Your task to perform on an android device: Go to CNN.com Image 0: 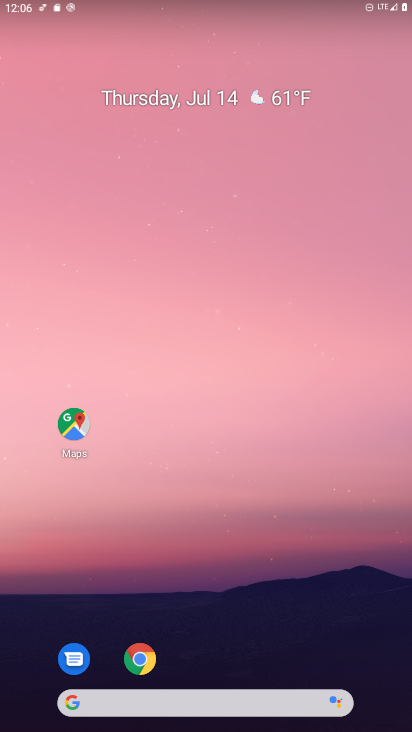
Step 0: click (137, 662)
Your task to perform on an android device: Go to CNN.com Image 1: 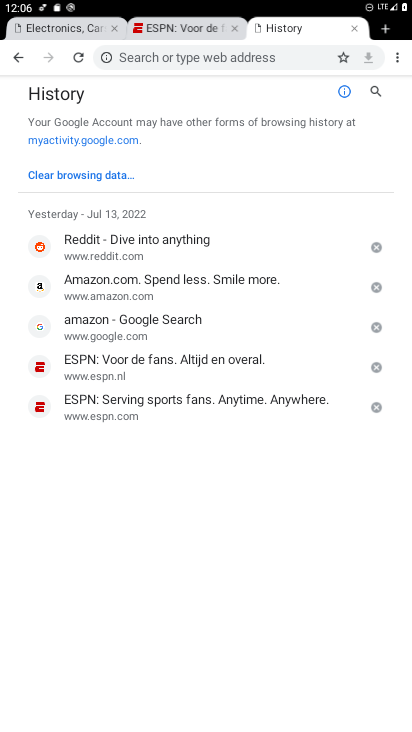
Step 1: click (214, 50)
Your task to perform on an android device: Go to CNN.com Image 2: 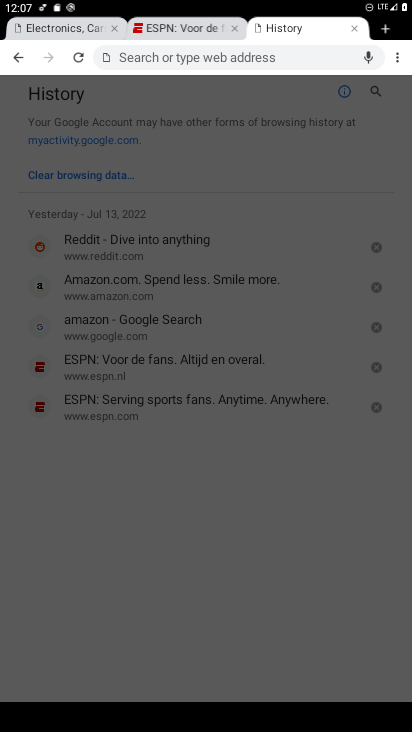
Step 2: type "CNN.com"
Your task to perform on an android device: Go to CNN.com Image 3: 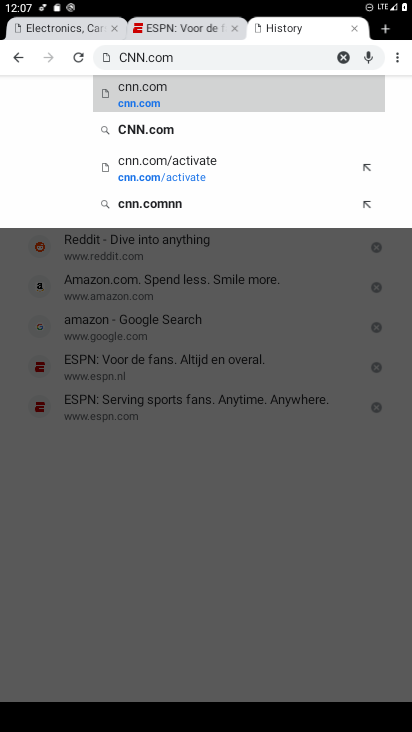
Step 3: click (126, 80)
Your task to perform on an android device: Go to CNN.com Image 4: 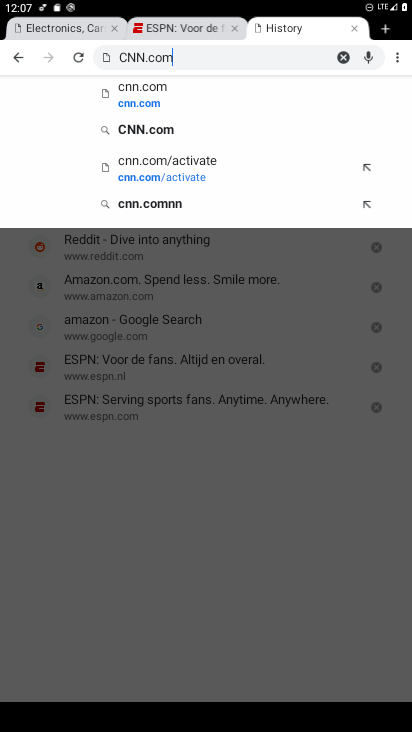
Step 4: click (147, 92)
Your task to perform on an android device: Go to CNN.com Image 5: 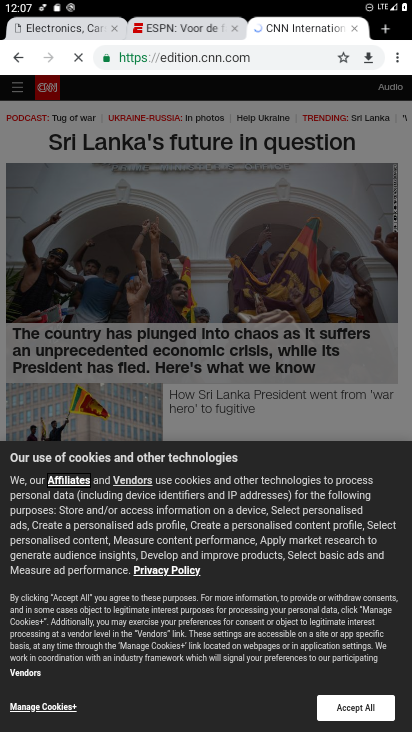
Step 5: task complete